Your task to perform on an android device: Open Google Maps and go to "Timeline" Image 0: 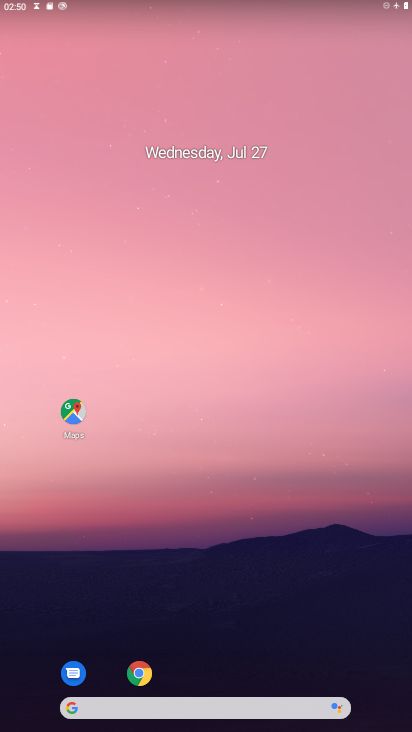
Step 0: click (72, 409)
Your task to perform on an android device: Open Google Maps and go to "Timeline" Image 1: 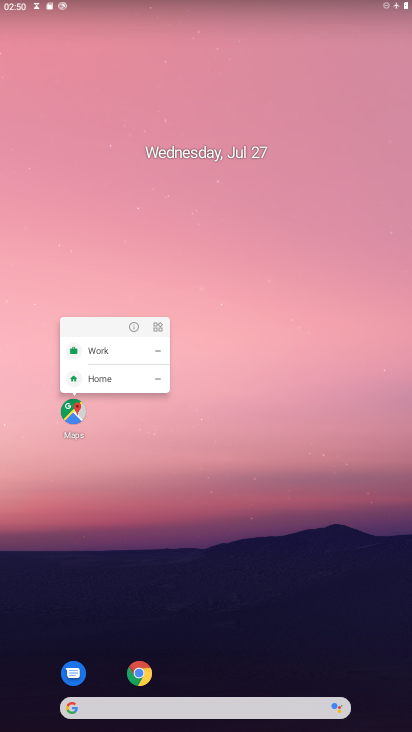
Step 1: click (72, 415)
Your task to perform on an android device: Open Google Maps and go to "Timeline" Image 2: 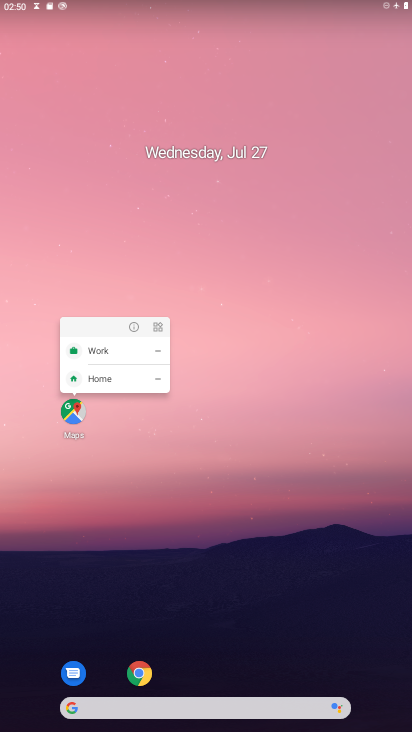
Step 2: click (72, 415)
Your task to perform on an android device: Open Google Maps and go to "Timeline" Image 3: 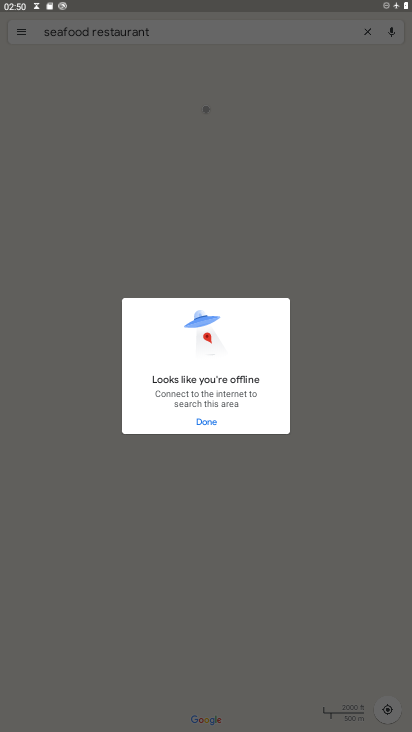
Step 3: click (299, 199)
Your task to perform on an android device: Open Google Maps and go to "Timeline" Image 4: 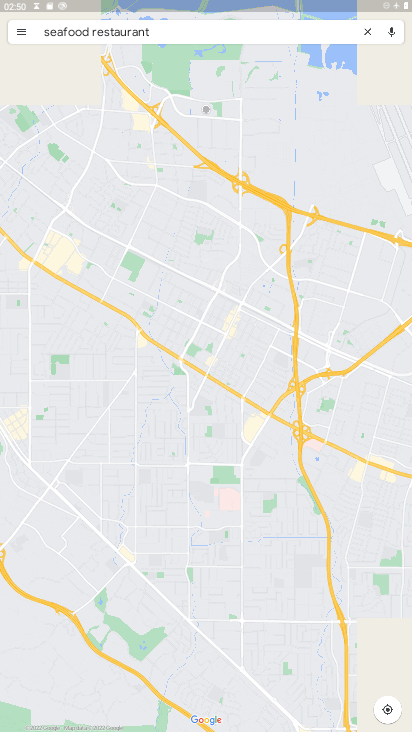
Step 4: click (18, 36)
Your task to perform on an android device: Open Google Maps and go to "Timeline" Image 5: 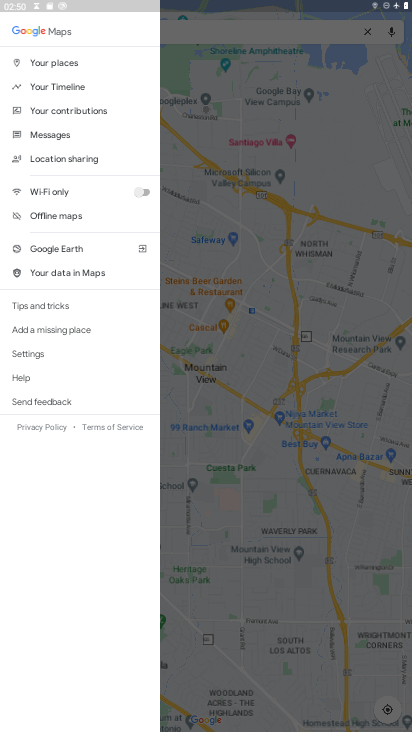
Step 5: click (52, 77)
Your task to perform on an android device: Open Google Maps and go to "Timeline" Image 6: 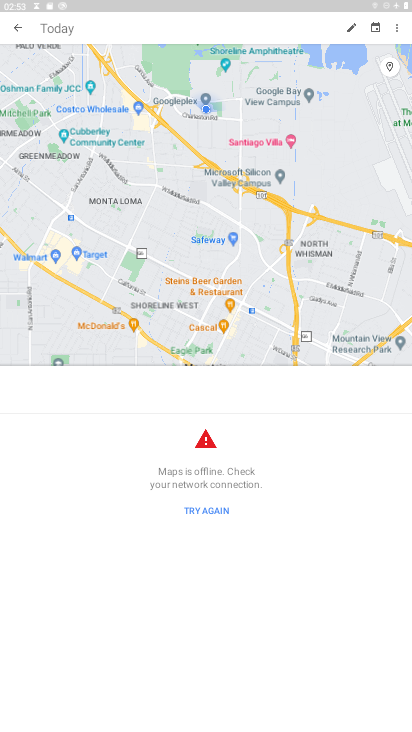
Step 6: task complete